Your task to perform on an android device: What's the weather going to be this weekend? Image 0: 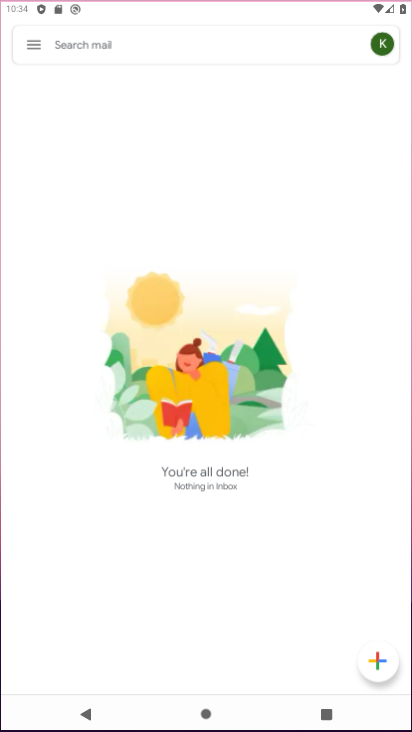
Step 0: press home button
Your task to perform on an android device: What's the weather going to be this weekend? Image 1: 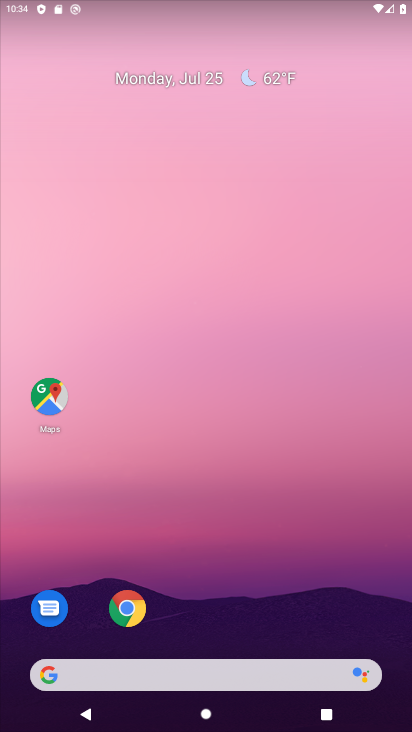
Step 1: drag from (155, 656) to (194, 211)
Your task to perform on an android device: What's the weather going to be this weekend? Image 2: 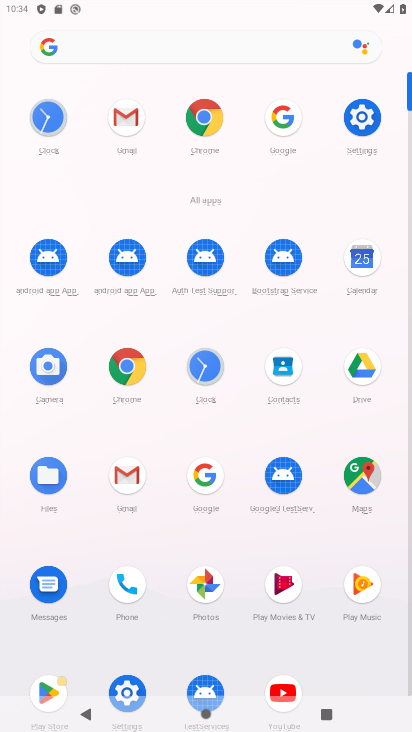
Step 2: click (288, 119)
Your task to perform on an android device: What's the weather going to be this weekend? Image 3: 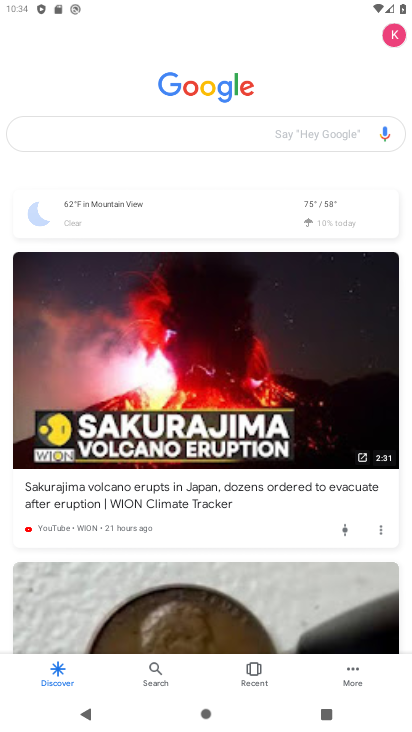
Step 3: click (101, 132)
Your task to perform on an android device: What's the weather going to be this weekend? Image 4: 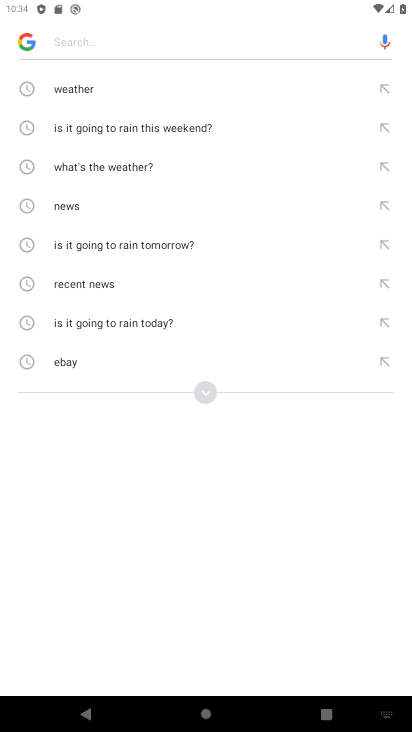
Step 4: click (198, 387)
Your task to perform on an android device: What's the weather going to be this weekend? Image 5: 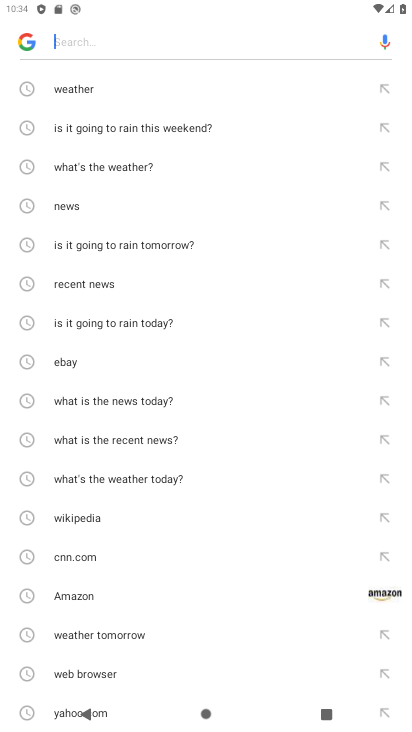
Step 5: drag from (134, 652) to (134, 355)
Your task to perform on an android device: What's the weather going to be this weekend? Image 6: 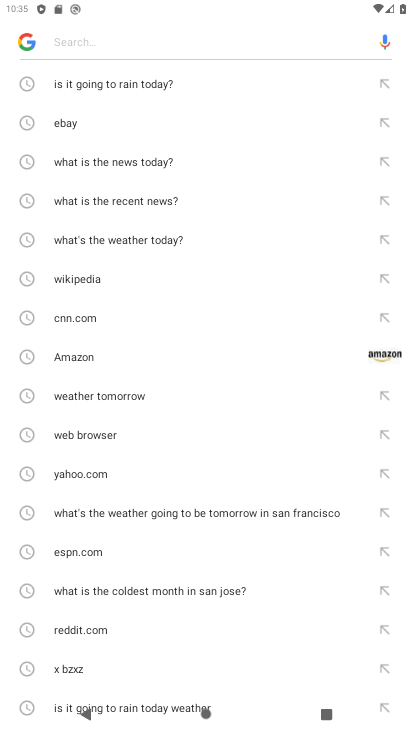
Step 6: drag from (131, 679) to (97, 342)
Your task to perform on an android device: What's the weather going to be this weekend? Image 7: 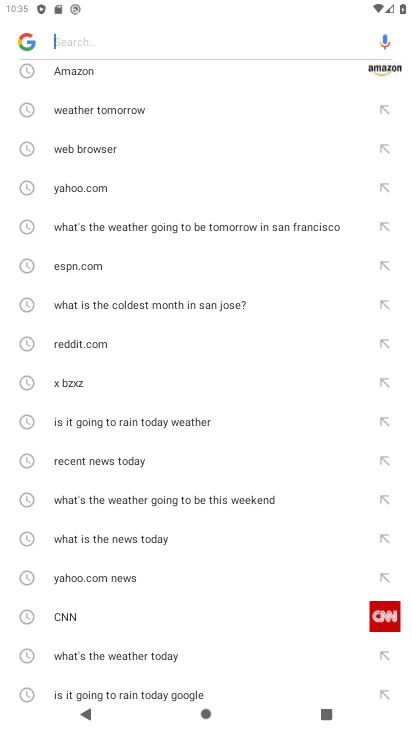
Step 7: click (104, 508)
Your task to perform on an android device: What's the weather going to be this weekend? Image 8: 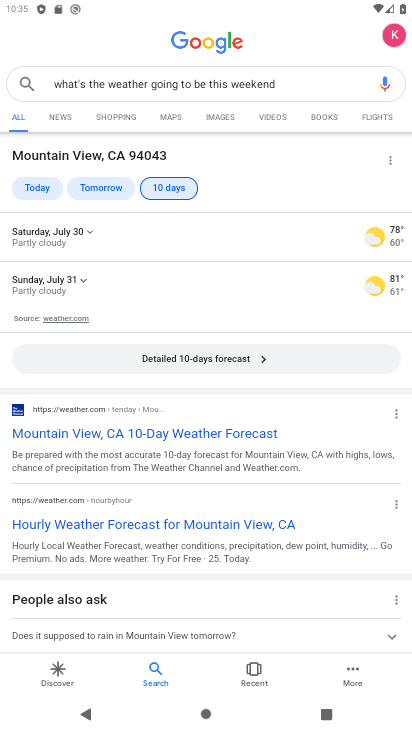
Step 8: click (158, 358)
Your task to perform on an android device: What's the weather going to be this weekend? Image 9: 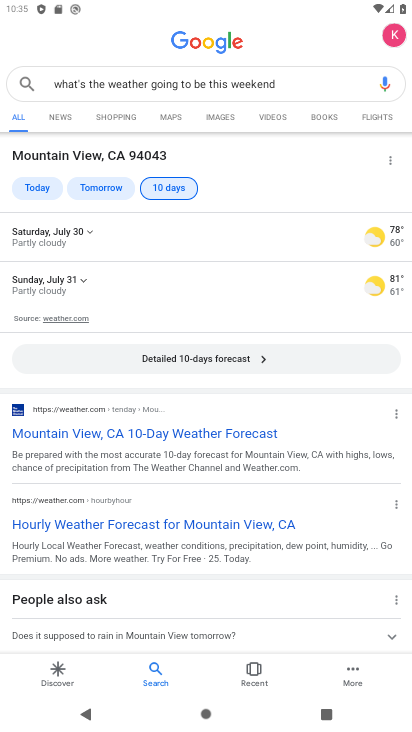
Step 9: click (186, 357)
Your task to perform on an android device: What's the weather going to be this weekend? Image 10: 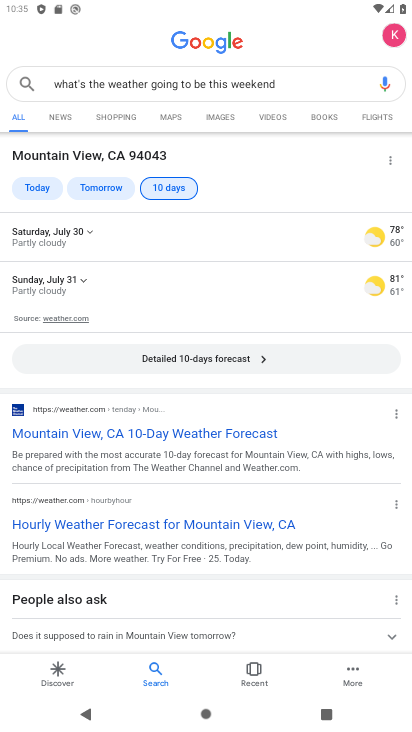
Step 10: click (249, 356)
Your task to perform on an android device: What's the weather going to be this weekend? Image 11: 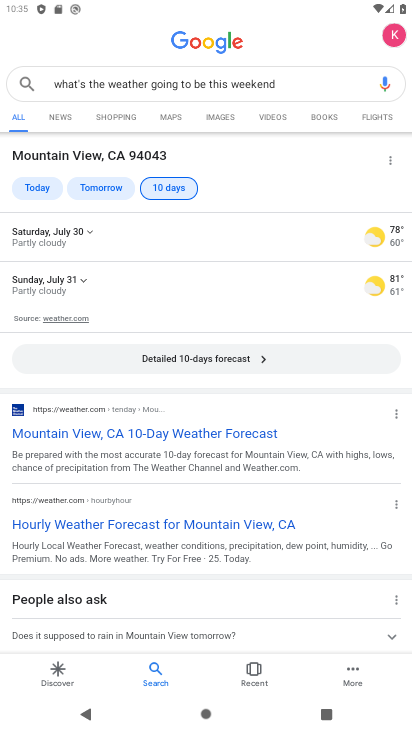
Step 11: click (260, 356)
Your task to perform on an android device: What's the weather going to be this weekend? Image 12: 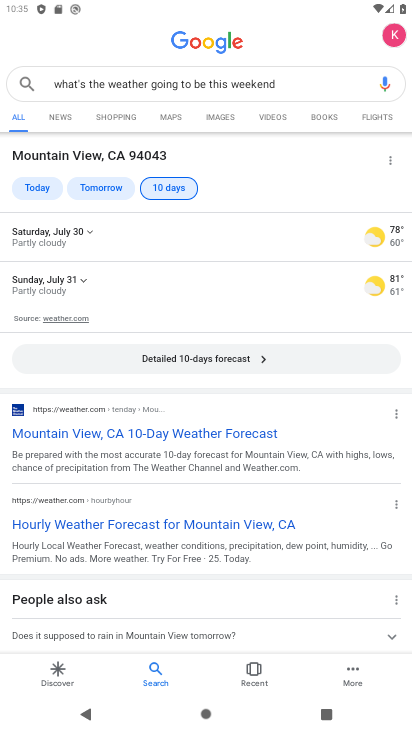
Step 12: task complete